Your task to perform on an android device: turn on bluetooth scan Image 0: 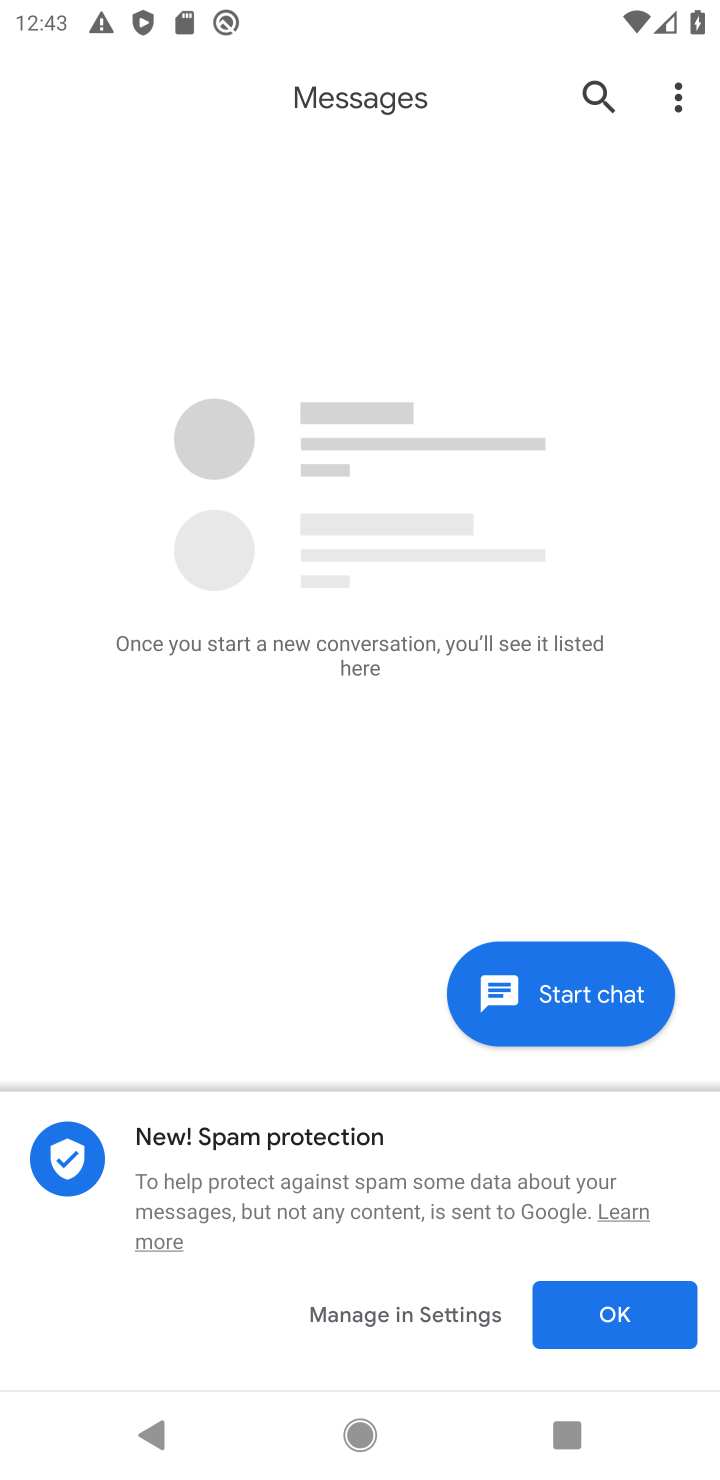
Step 0: press home button
Your task to perform on an android device: turn on bluetooth scan Image 1: 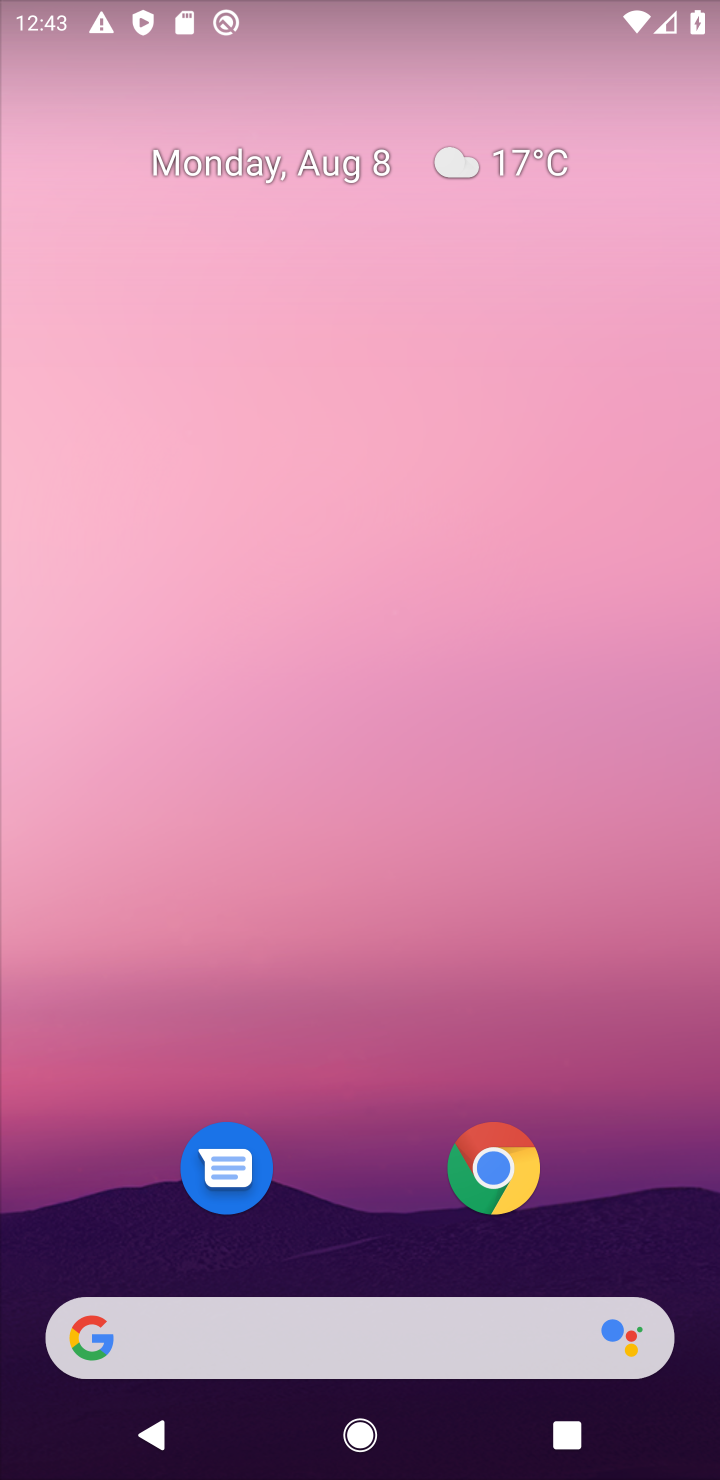
Step 1: drag from (49, 1428) to (538, 388)
Your task to perform on an android device: turn on bluetooth scan Image 2: 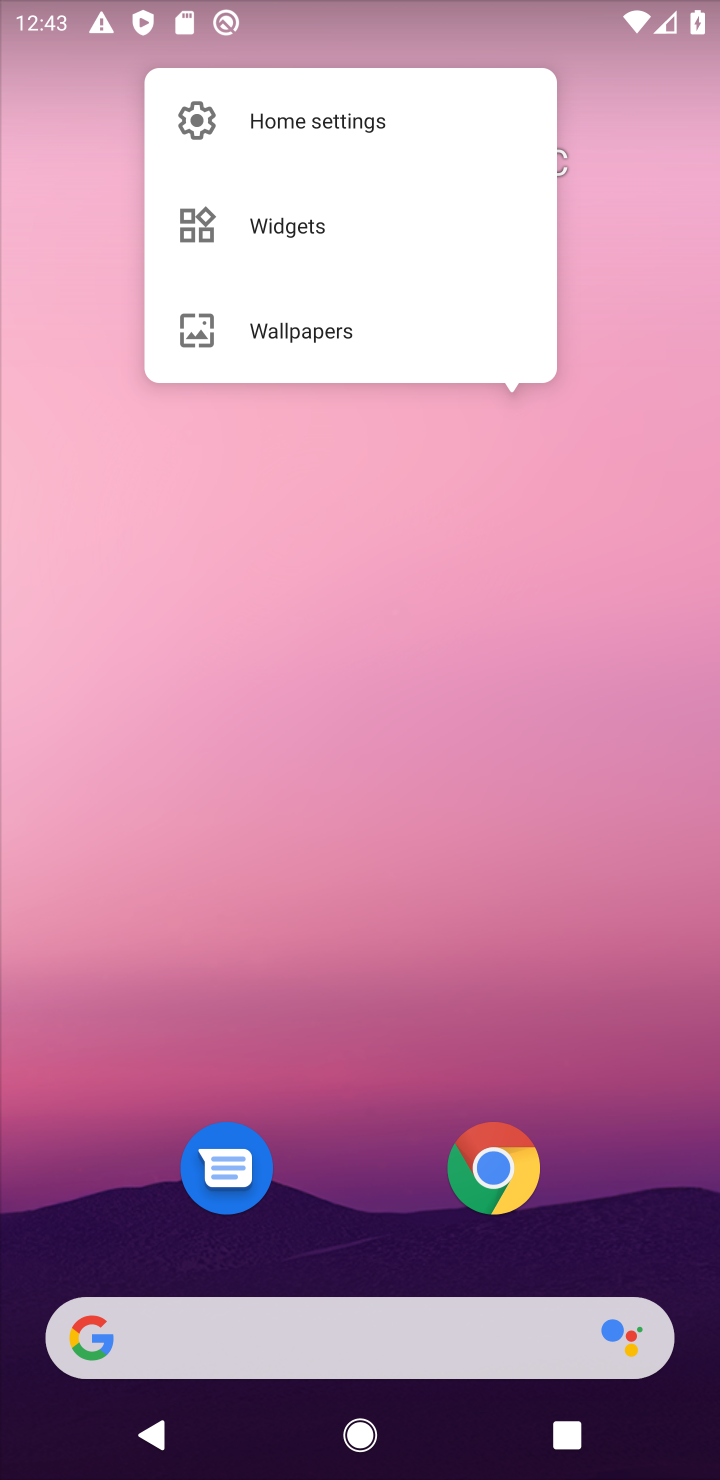
Step 2: drag from (46, 1422) to (311, 511)
Your task to perform on an android device: turn on bluetooth scan Image 3: 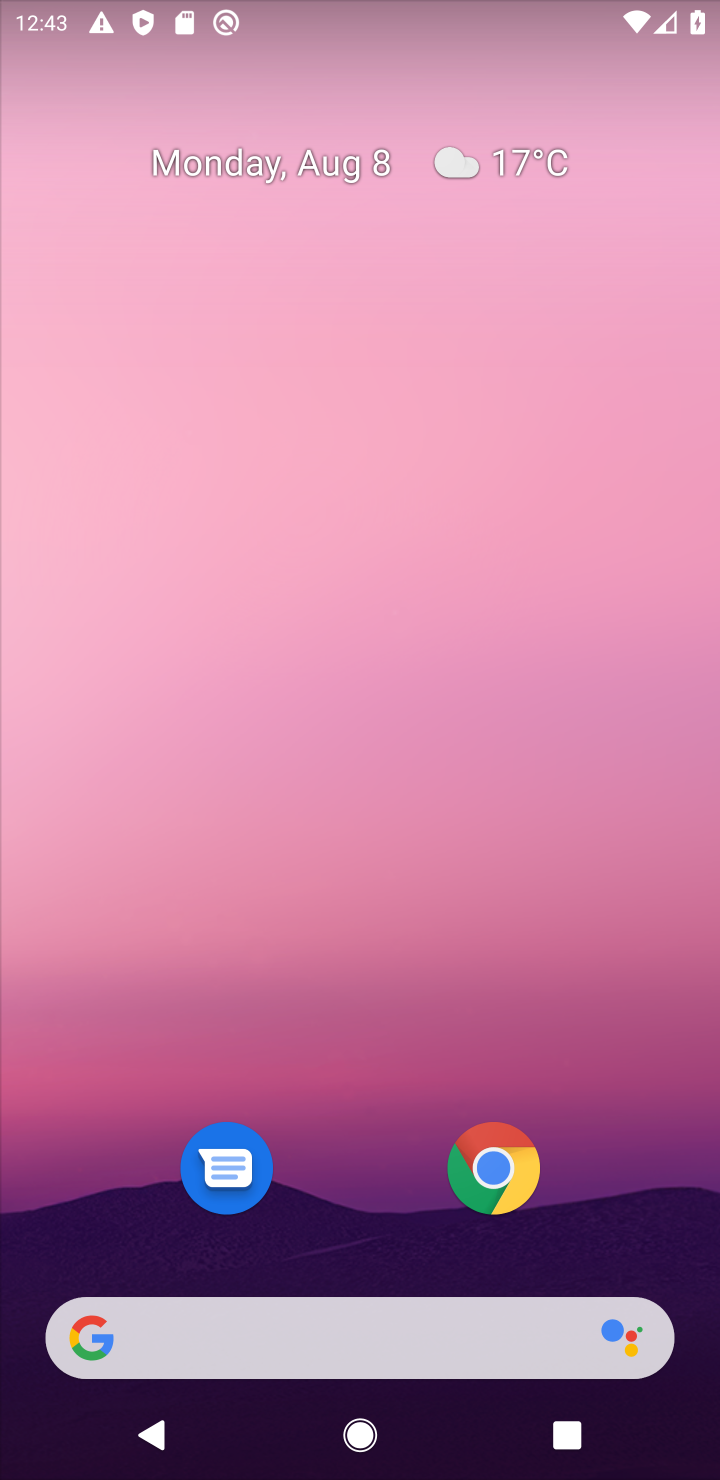
Step 3: drag from (68, 1397) to (403, 395)
Your task to perform on an android device: turn on bluetooth scan Image 4: 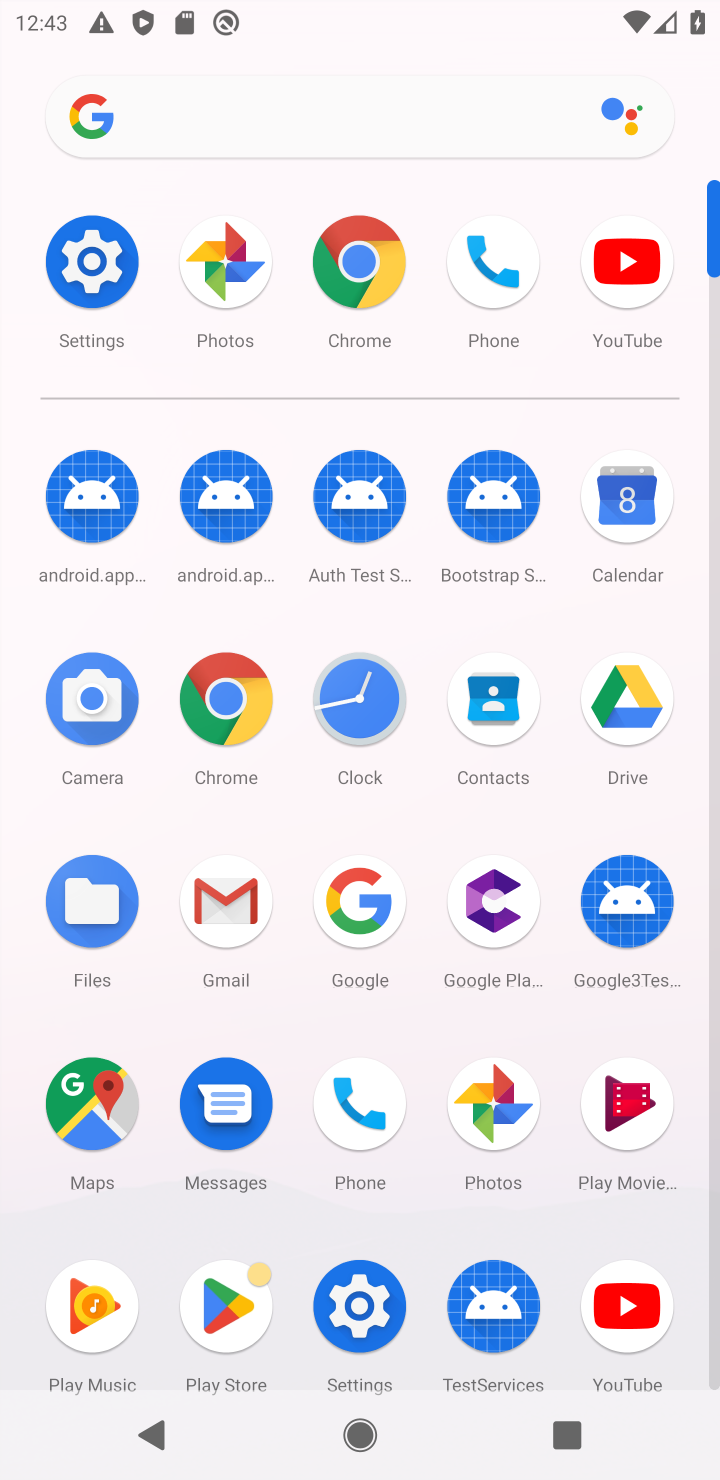
Step 4: click (354, 1289)
Your task to perform on an android device: turn on bluetooth scan Image 5: 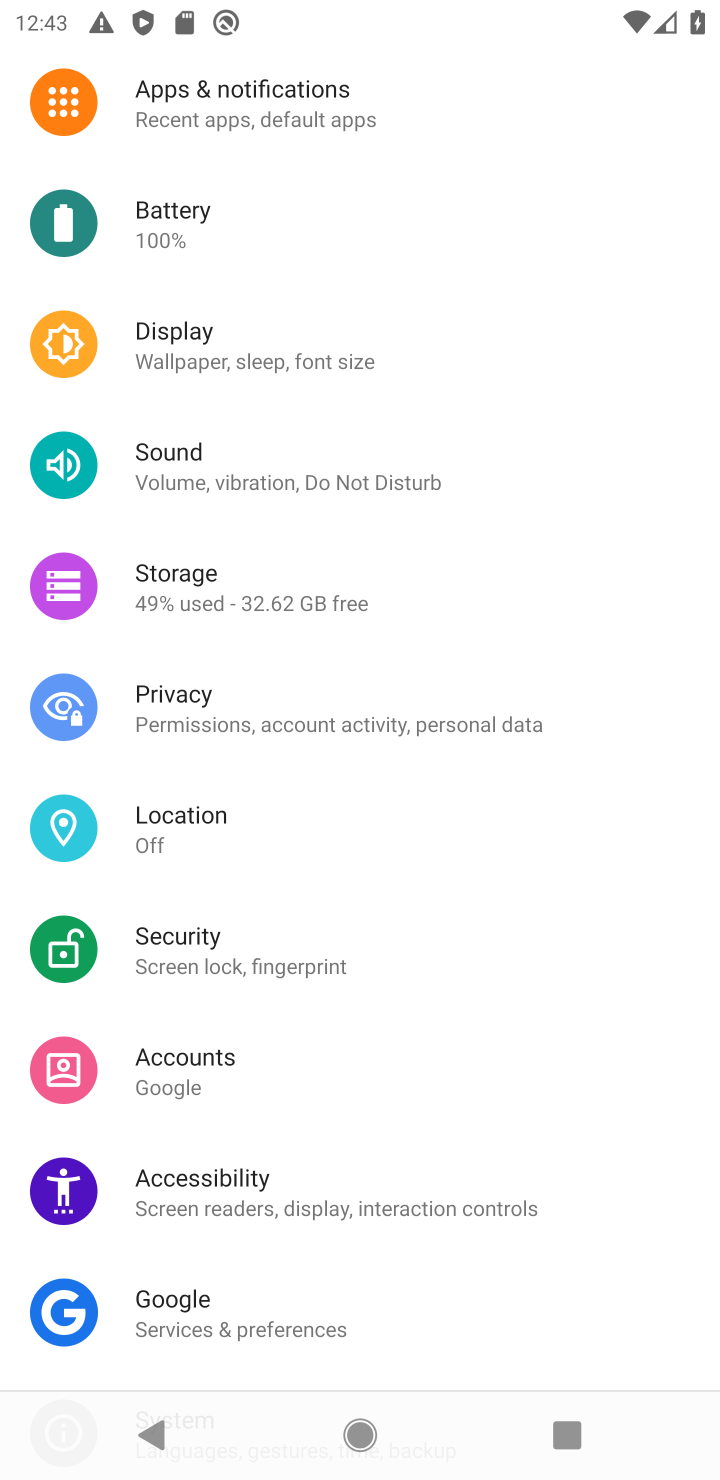
Step 5: drag from (526, 73) to (536, 411)
Your task to perform on an android device: turn on bluetooth scan Image 6: 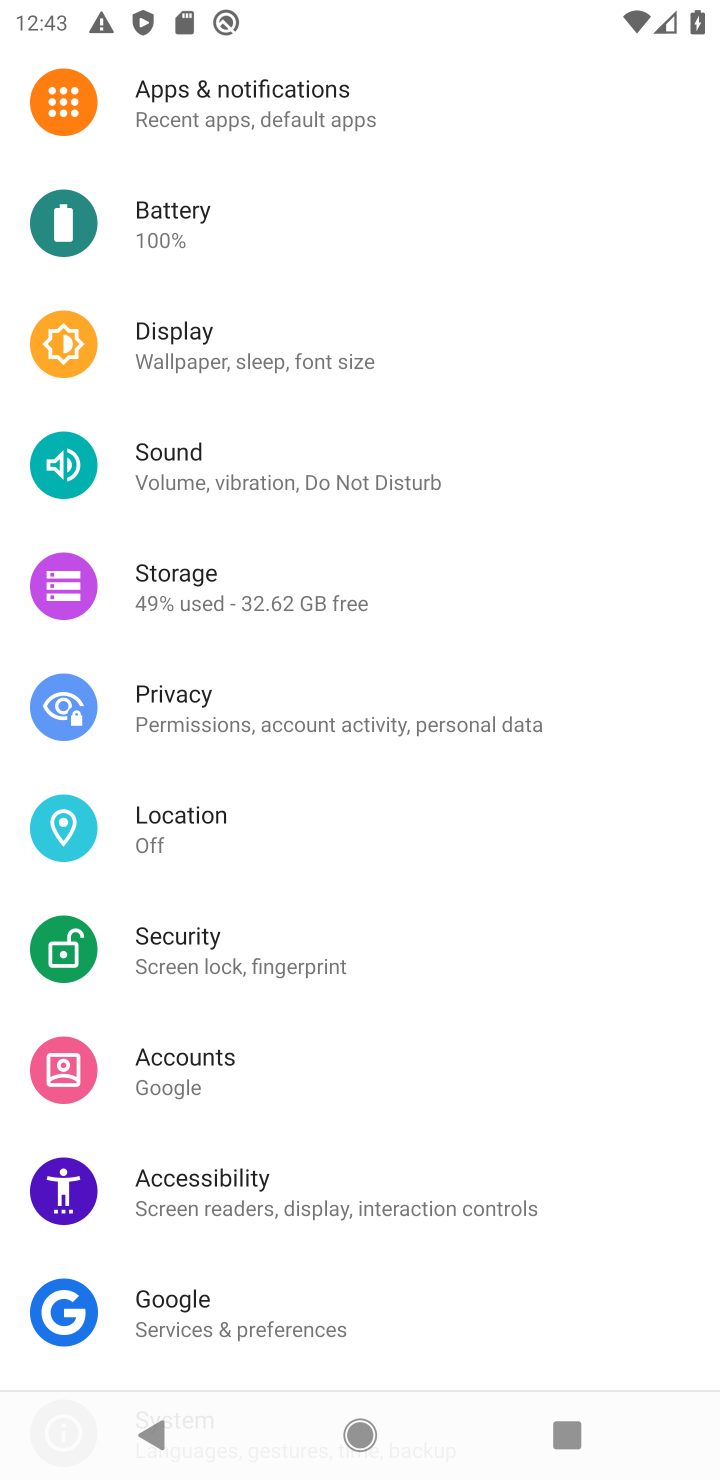
Step 6: drag from (539, 435) to (609, 1278)
Your task to perform on an android device: turn on bluetooth scan Image 7: 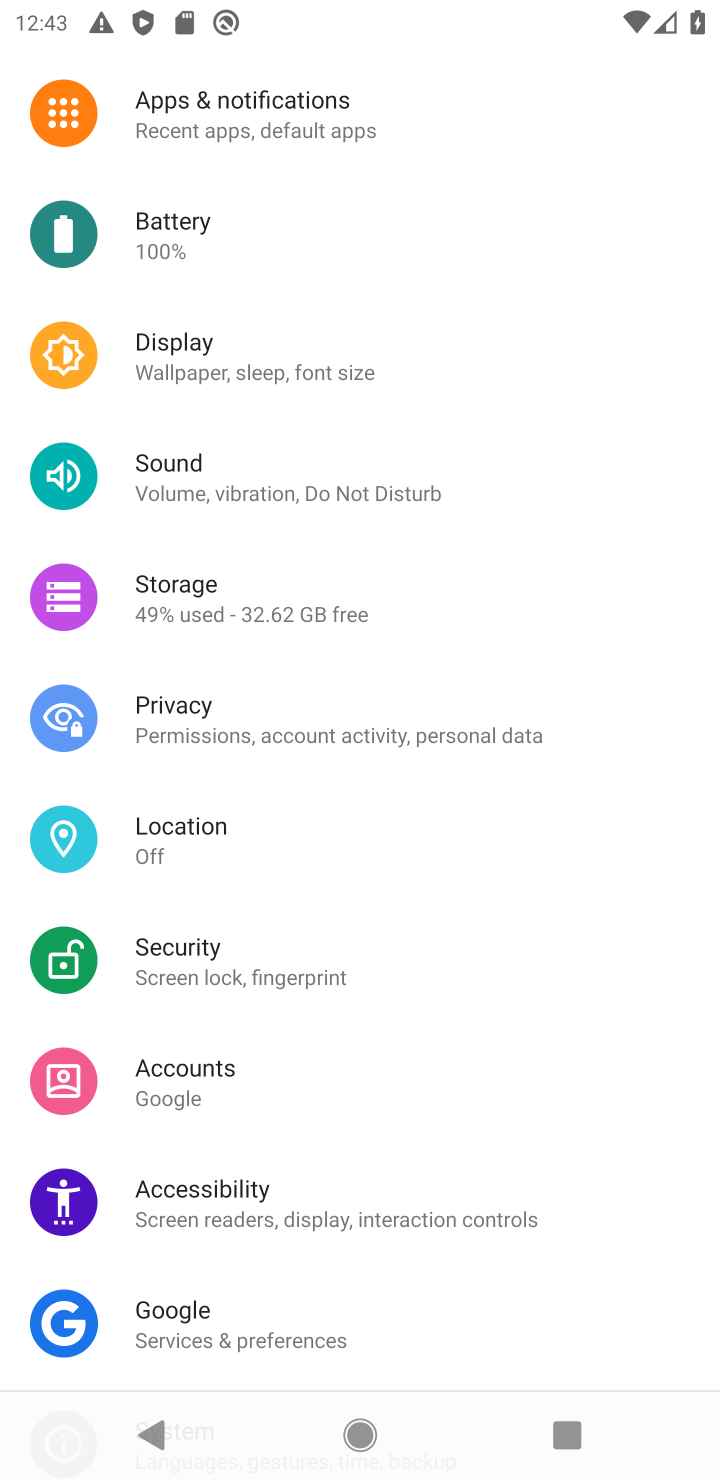
Step 7: drag from (580, 79) to (555, 487)
Your task to perform on an android device: turn on bluetooth scan Image 8: 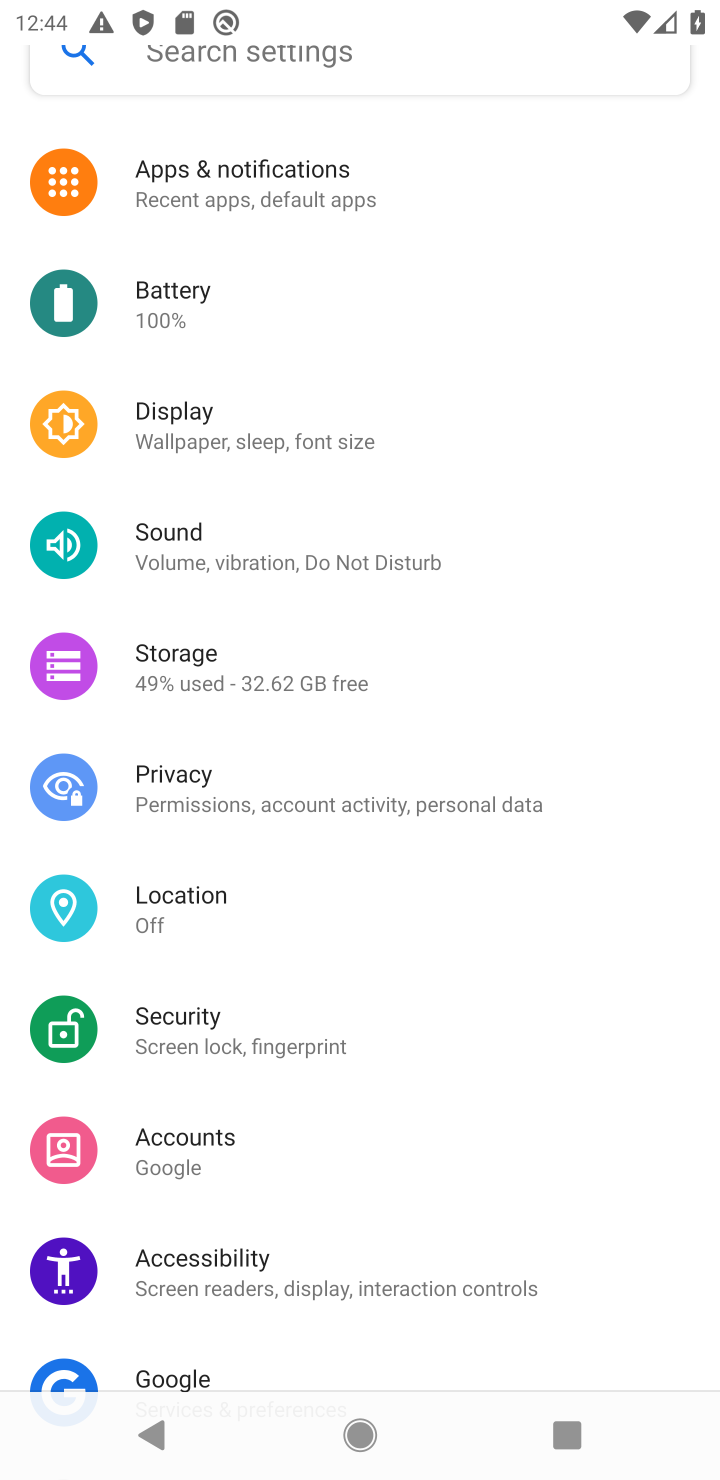
Step 8: drag from (540, 166) to (353, 1350)
Your task to perform on an android device: turn on bluetooth scan Image 9: 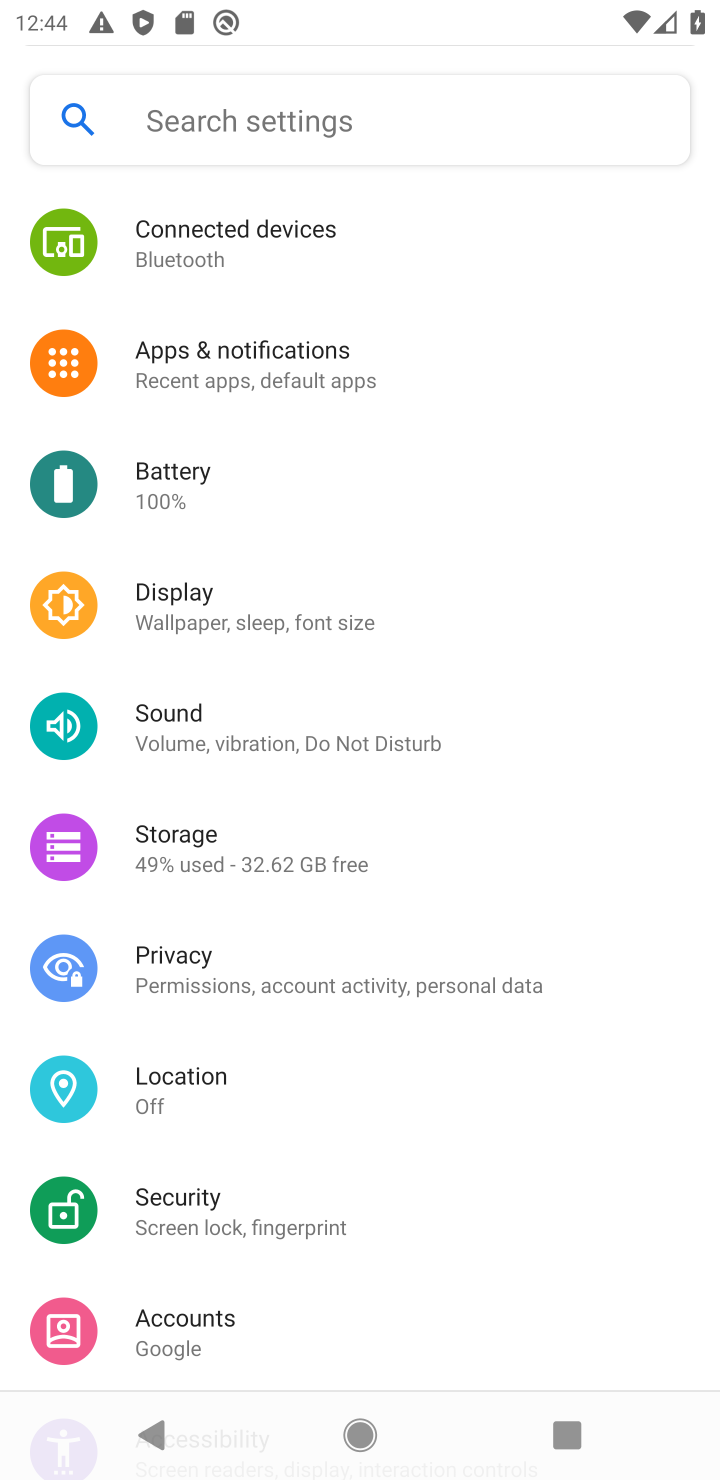
Step 9: click (203, 249)
Your task to perform on an android device: turn on bluetooth scan Image 10: 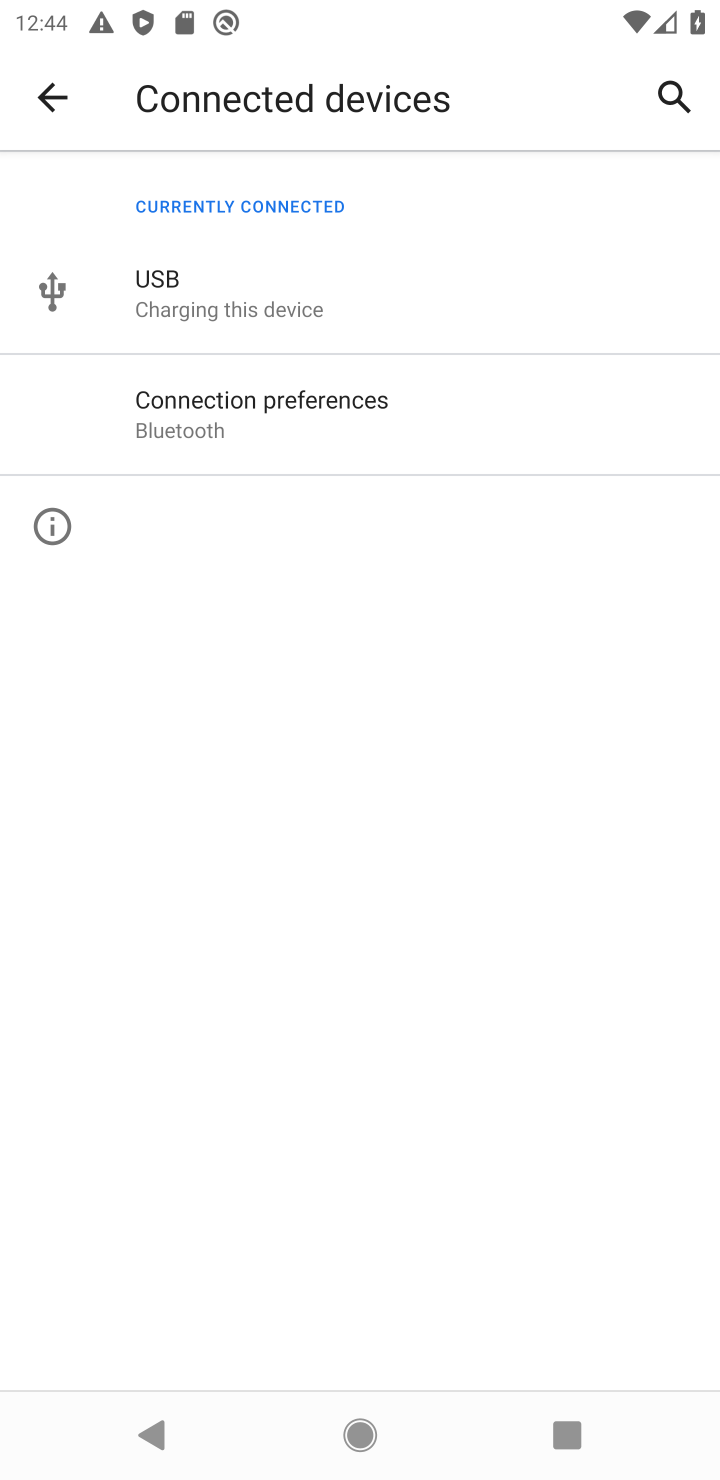
Step 10: click (225, 409)
Your task to perform on an android device: turn on bluetooth scan Image 11: 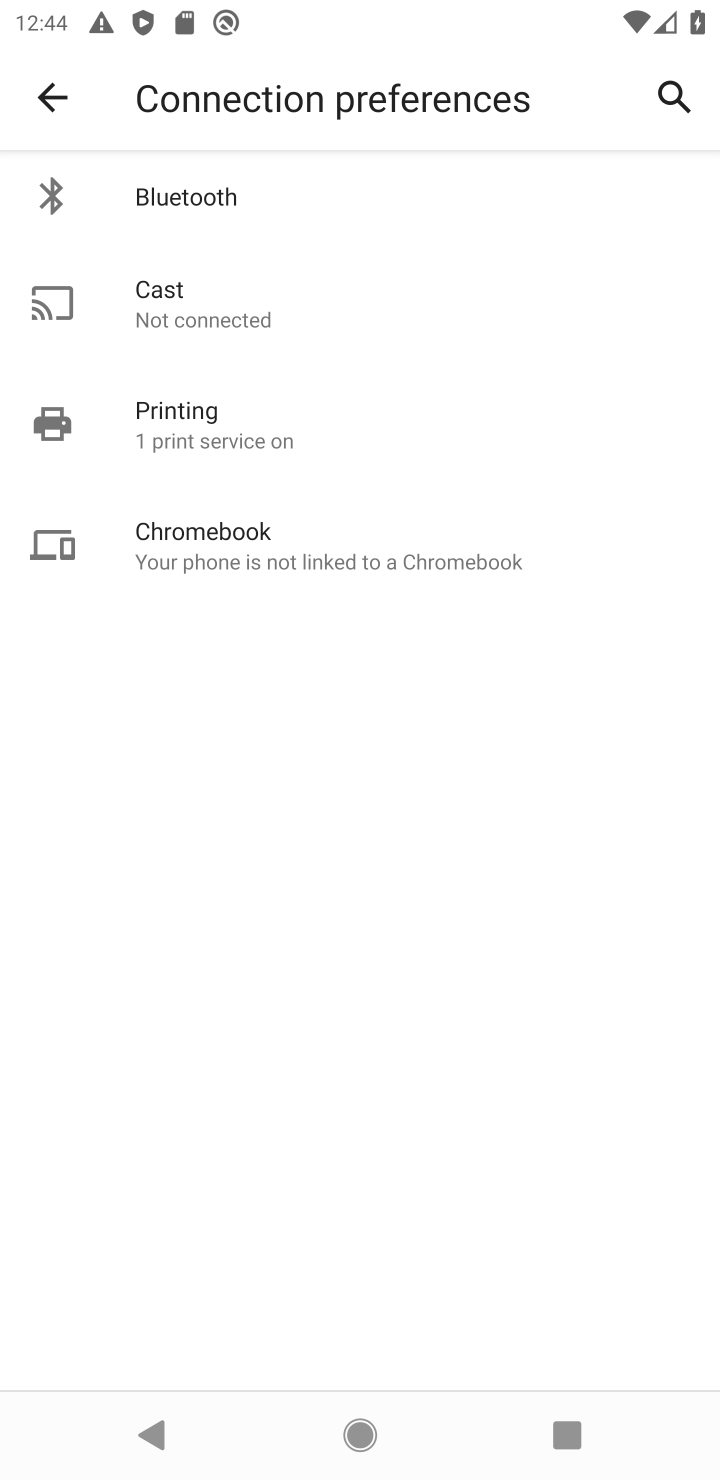
Step 11: click (176, 204)
Your task to perform on an android device: turn on bluetooth scan Image 12: 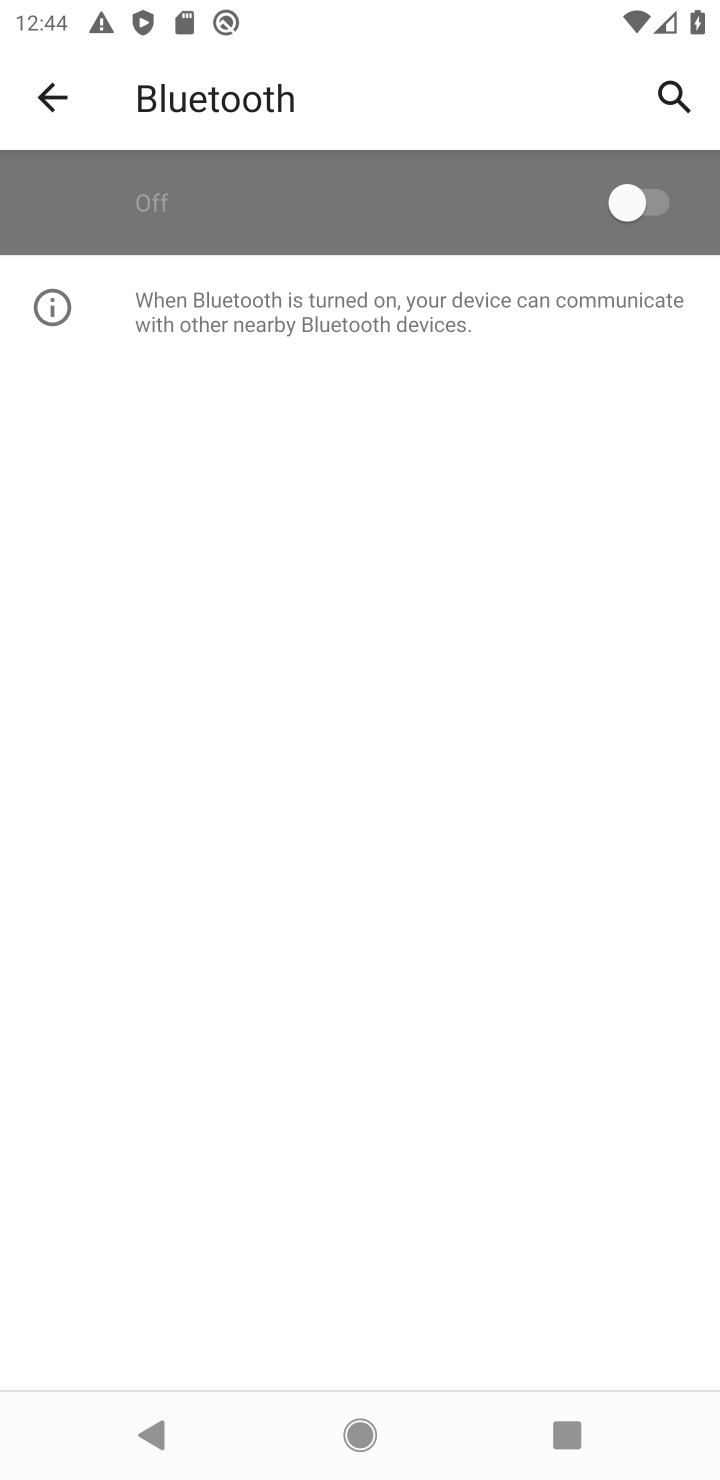
Step 12: click (625, 211)
Your task to perform on an android device: turn on bluetooth scan Image 13: 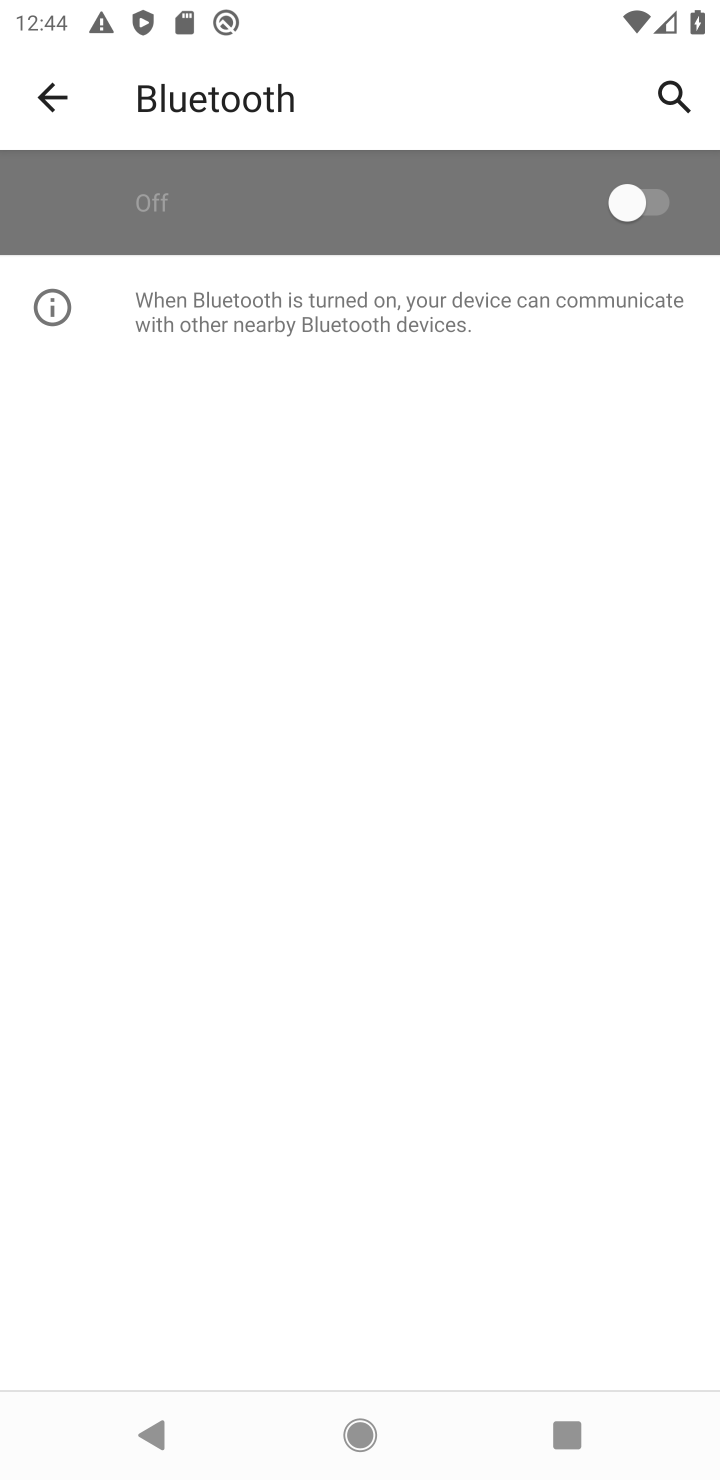
Step 13: task complete